Your task to perform on an android device: Open wifi settings Image 0: 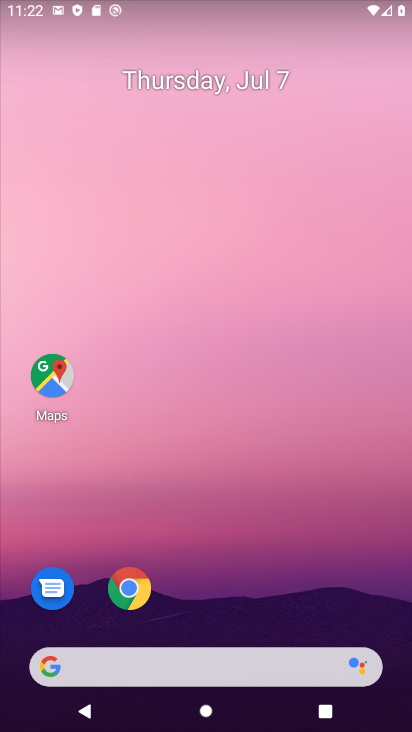
Step 0: drag from (261, 350) to (266, 301)
Your task to perform on an android device: Open wifi settings Image 1: 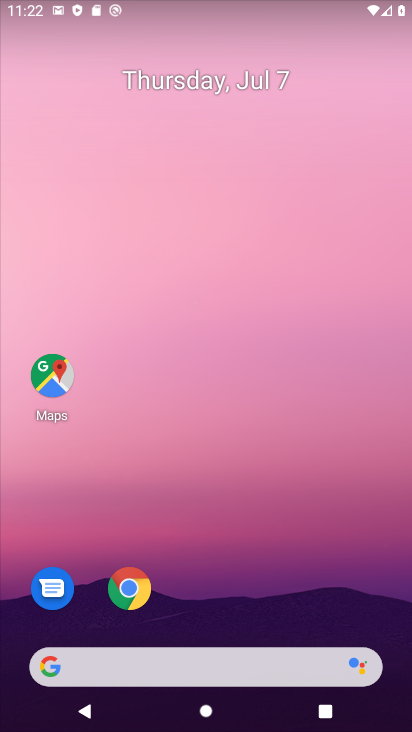
Step 1: drag from (223, 524) to (263, 192)
Your task to perform on an android device: Open wifi settings Image 2: 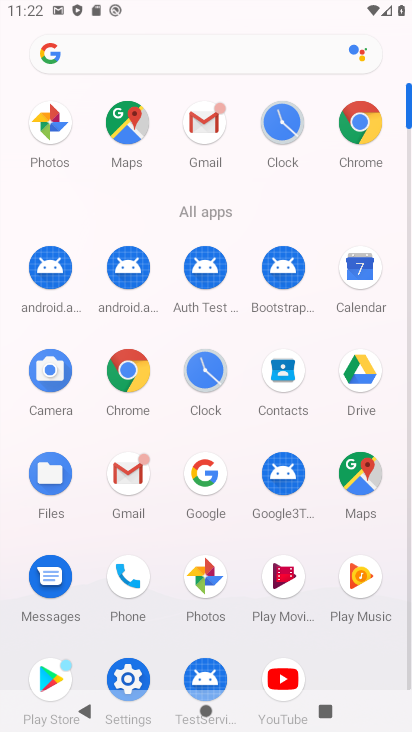
Step 2: click (124, 670)
Your task to perform on an android device: Open wifi settings Image 3: 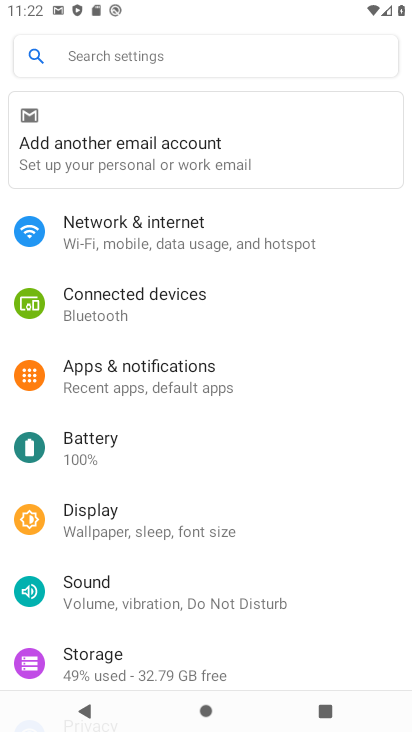
Step 3: click (124, 234)
Your task to perform on an android device: Open wifi settings Image 4: 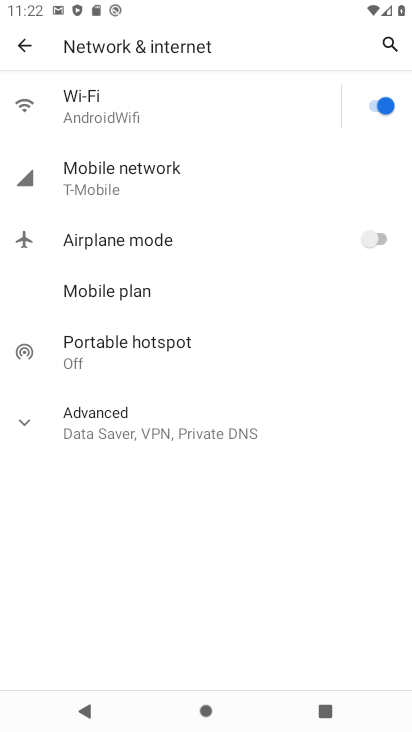
Step 4: click (161, 97)
Your task to perform on an android device: Open wifi settings Image 5: 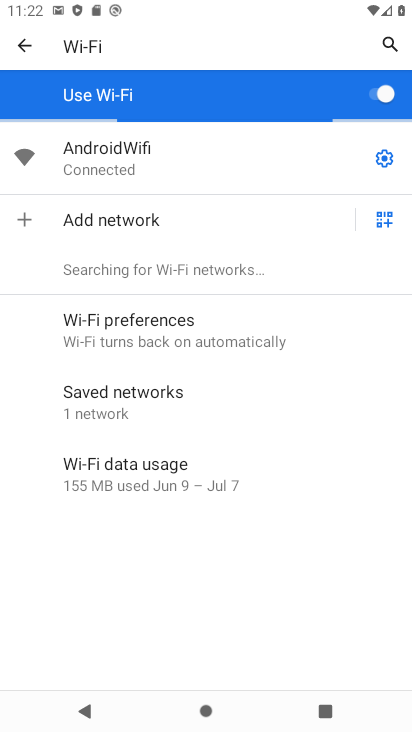
Step 5: task complete